Your task to perform on an android device: Go to Wikipedia Image 0: 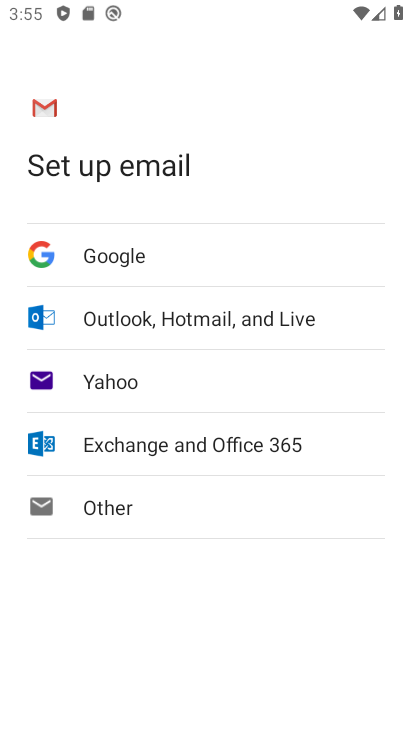
Step 0: press back button
Your task to perform on an android device: Go to Wikipedia Image 1: 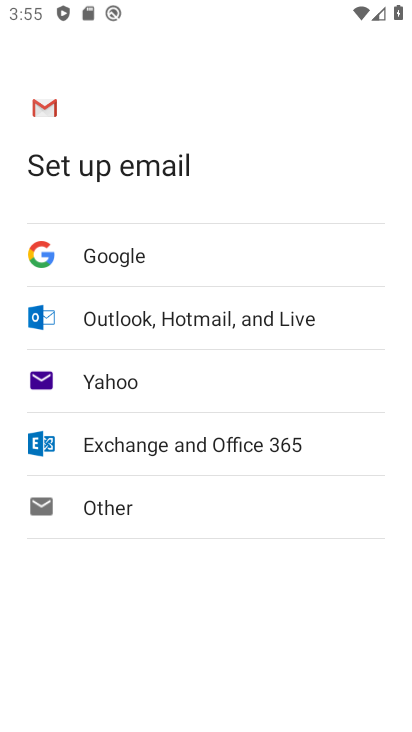
Step 1: press home button
Your task to perform on an android device: Go to Wikipedia Image 2: 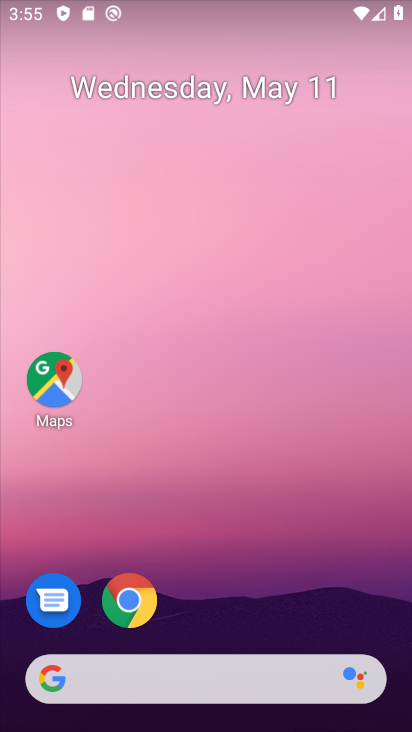
Step 2: click (118, 608)
Your task to perform on an android device: Go to Wikipedia Image 3: 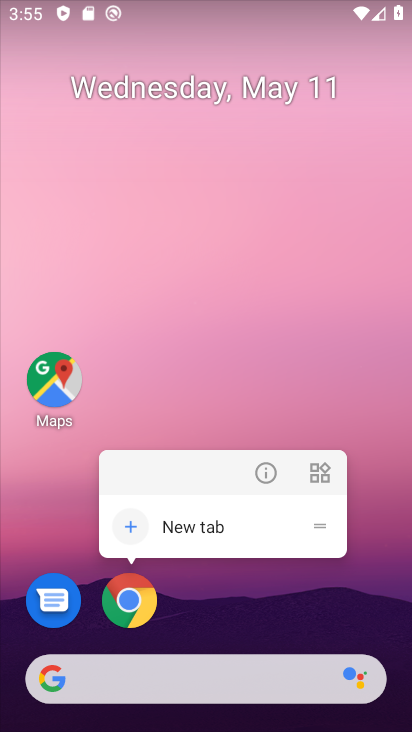
Step 3: click (123, 604)
Your task to perform on an android device: Go to Wikipedia Image 4: 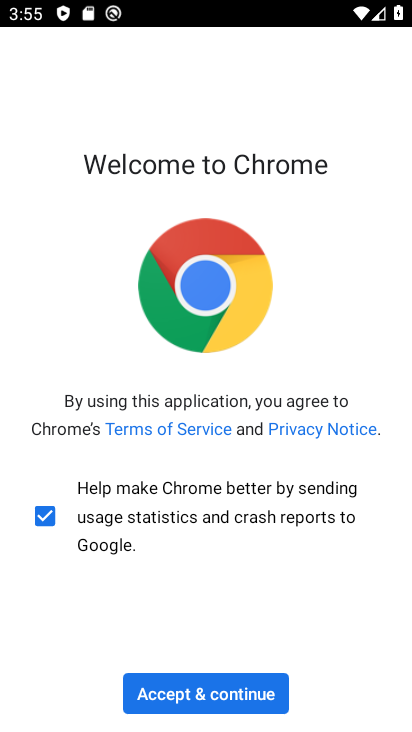
Step 4: click (233, 705)
Your task to perform on an android device: Go to Wikipedia Image 5: 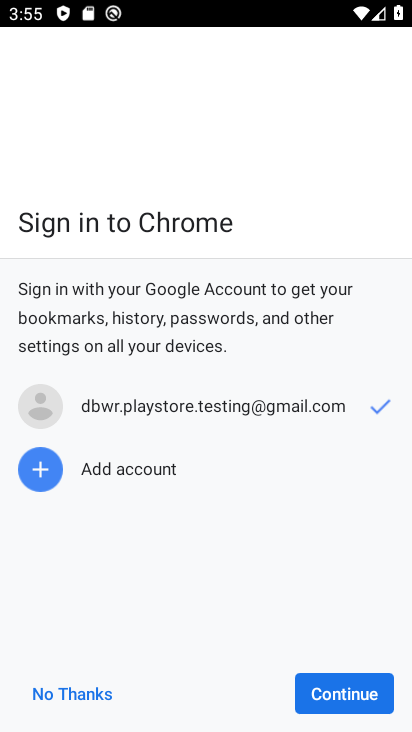
Step 5: click (370, 684)
Your task to perform on an android device: Go to Wikipedia Image 6: 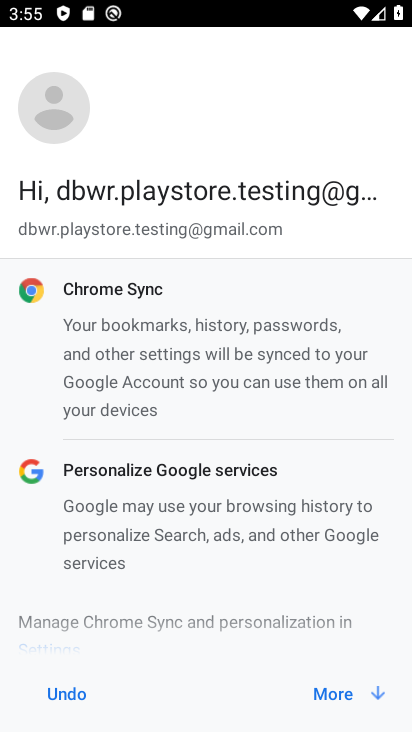
Step 6: click (338, 687)
Your task to perform on an android device: Go to Wikipedia Image 7: 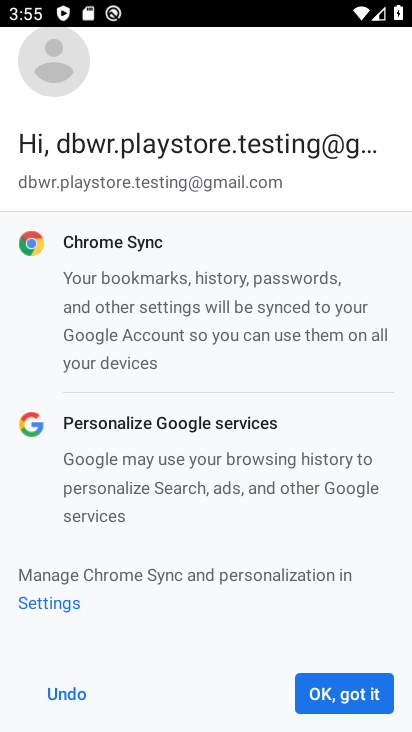
Step 7: click (341, 690)
Your task to perform on an android device: Go to Wikipedia Image 8: 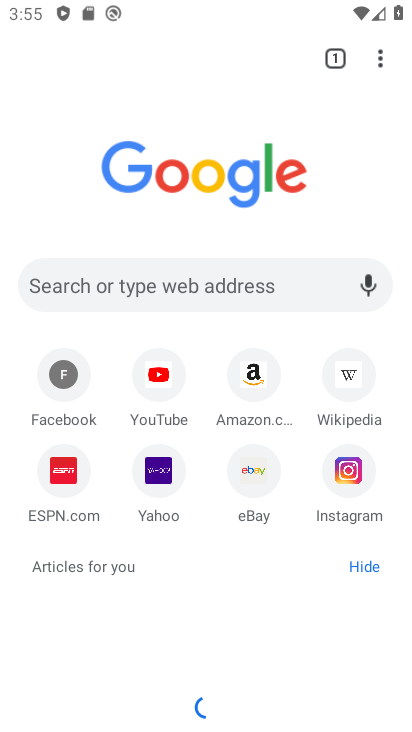
Step 8: click (350, 390)
Your task to perform on an android device: Go to Wikipedia Image 9: 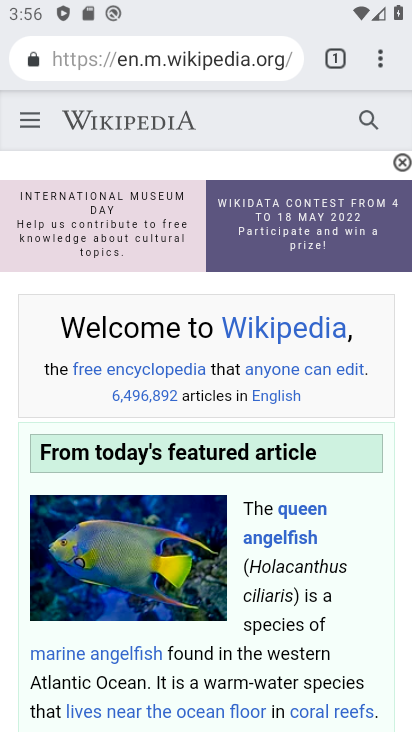
Step 9: task complete